Your task to perform on an android device: Open Google Maps Image 0: 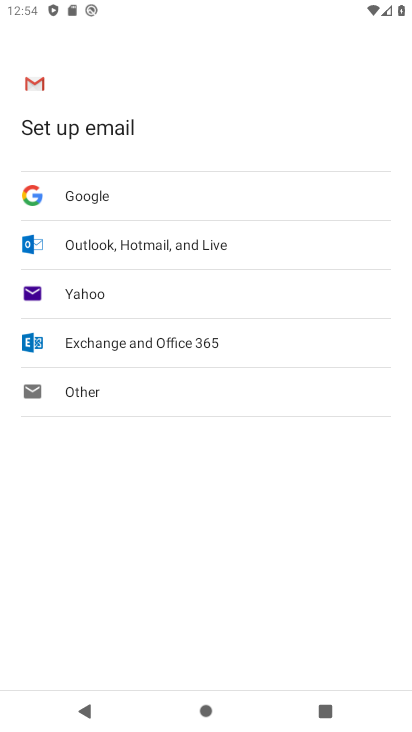
Step 0: press home button
Your task to perform on an android device: Open Google Maps Image 1: 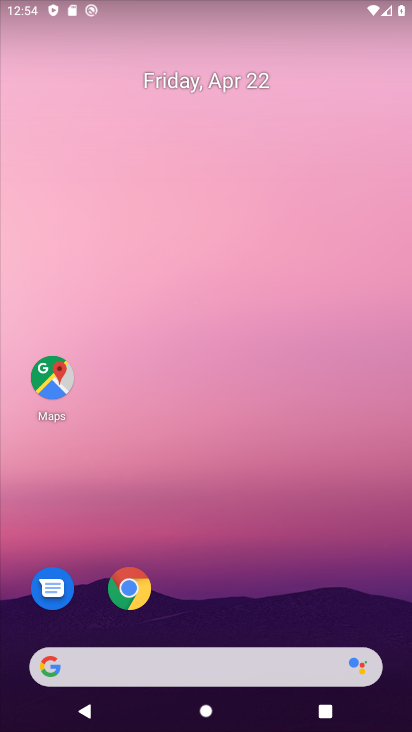
Step 1: drag from (356, 572) to (338, 119)
Your task to perform on an android device: Open Google Maps Image 2: 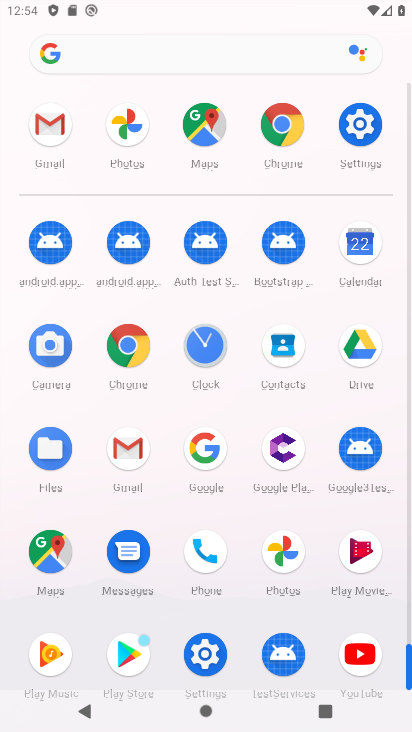
Step 2: click (54, 549)
Your task to perform on an android device: Open Google Maps Image 3: 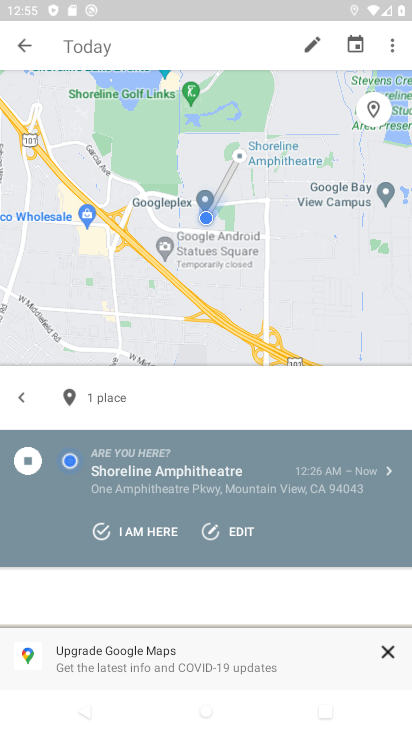
Step 3: task complete